Your task to perform on an android device: Find a good burger place on Maps Image 0: 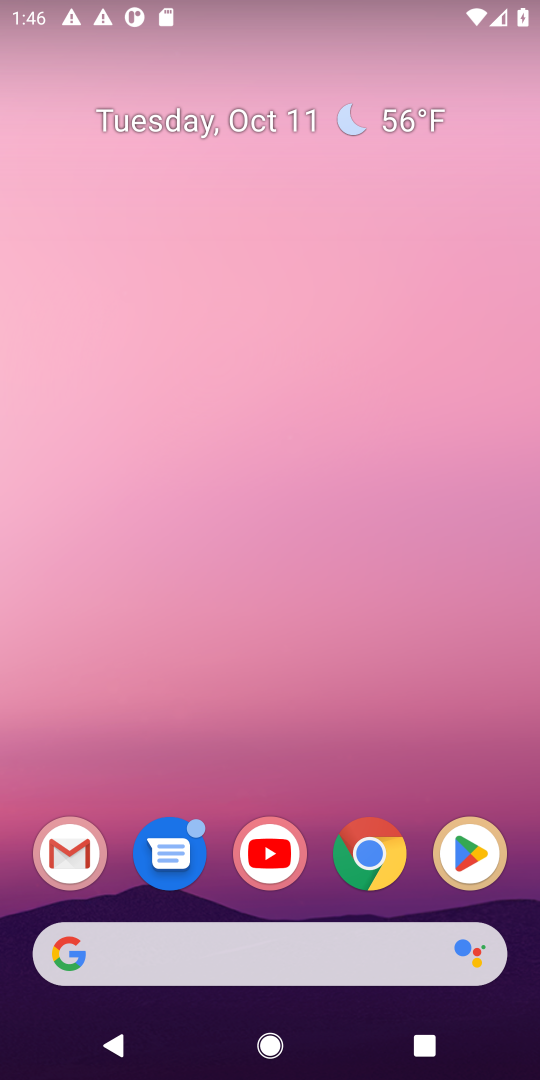
Step 0: drag from (214, 679) to (203, 248)
Your task to perform on an android device: Find a good burger place on Maps Image 1: 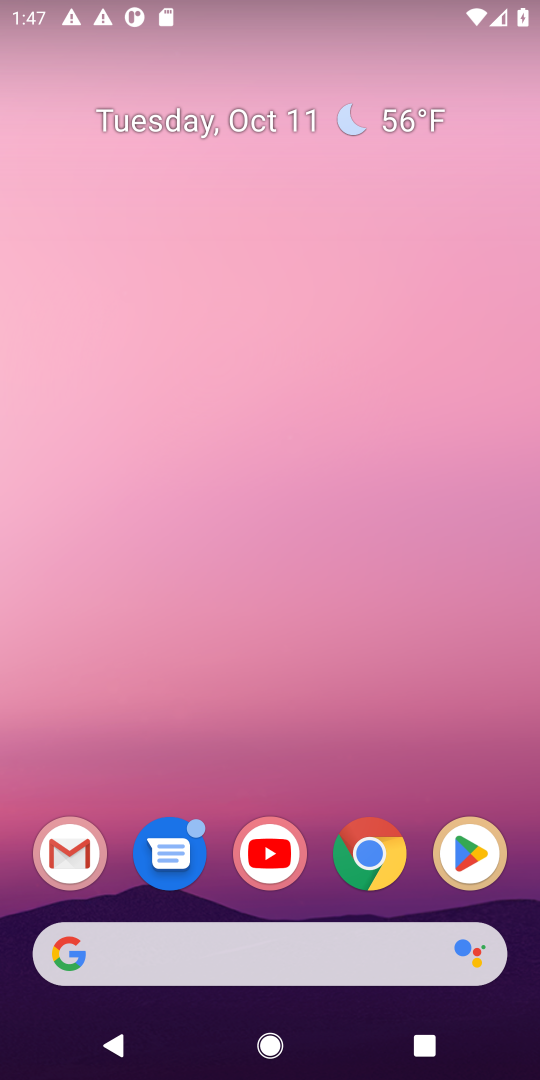
Step 1: drag from (269, 775) to (269, 103)
Your task to perform on an android device: Find a good burger place on Maps Image 2: 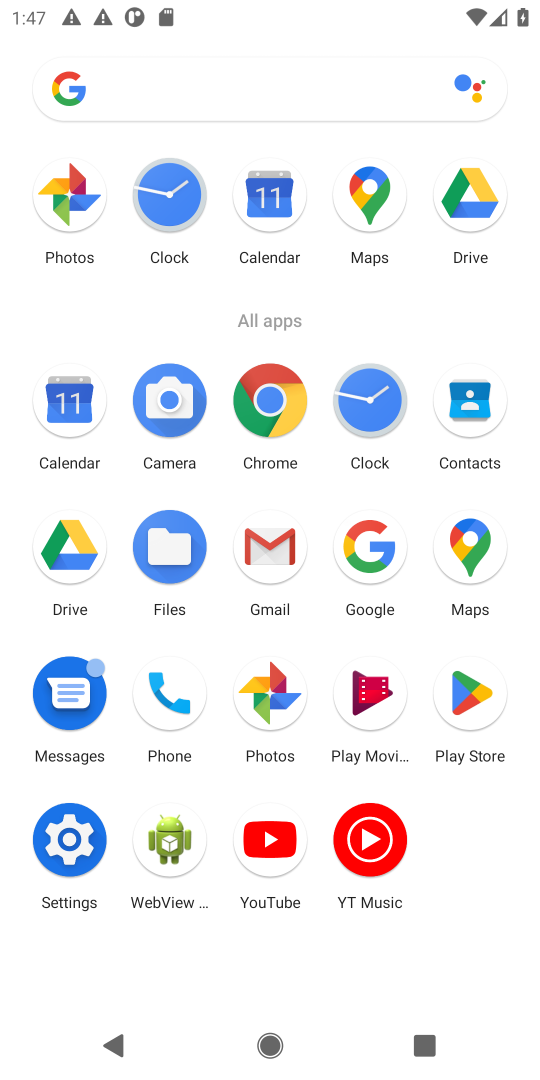
Step 2: click (369, 549)
Your task to perform on an android device: Find a good burger place on Maps Image 3: 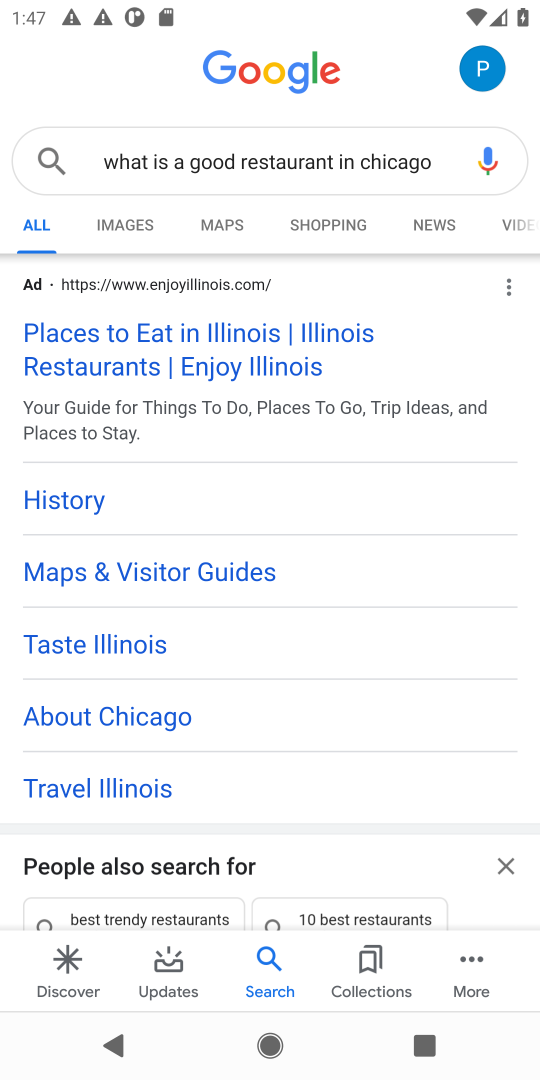
Step 3: click (220, 164)
Your task to perform on an android device: Find a good burger place on Maps Image 4: 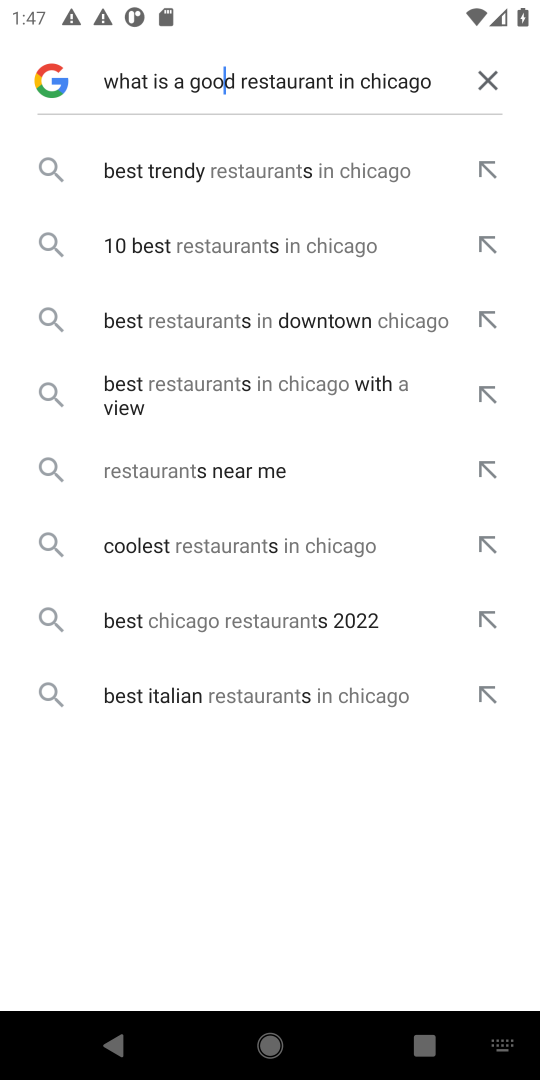
Step 4: click (488, 76)
Your task to perform on an android device: Find a good burger place on Maps Image 5: 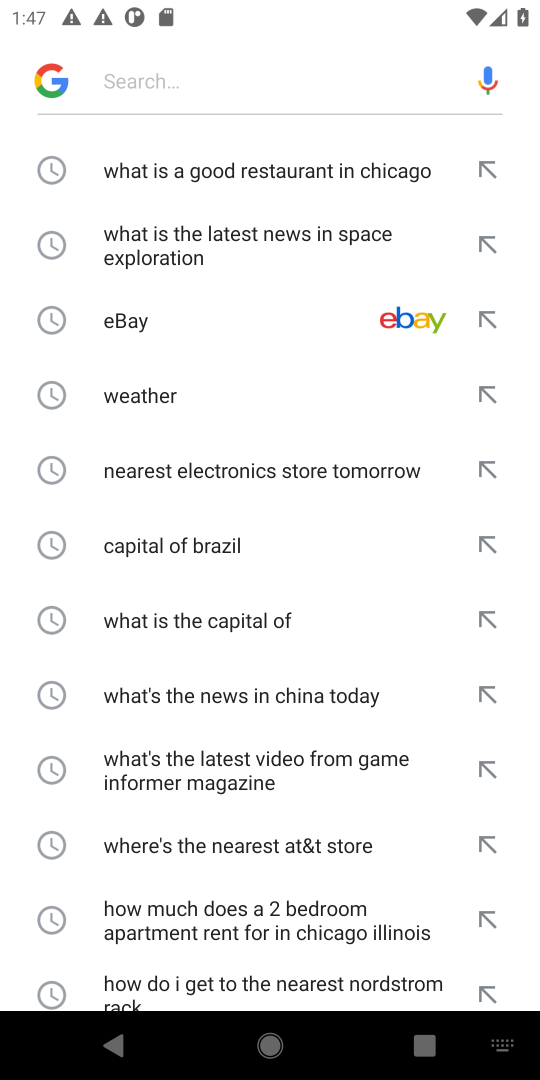
Step 5: type "Find a good burger place on Maps"
Your task to perform on an android device: Find a good burger place on Maps Image 6: 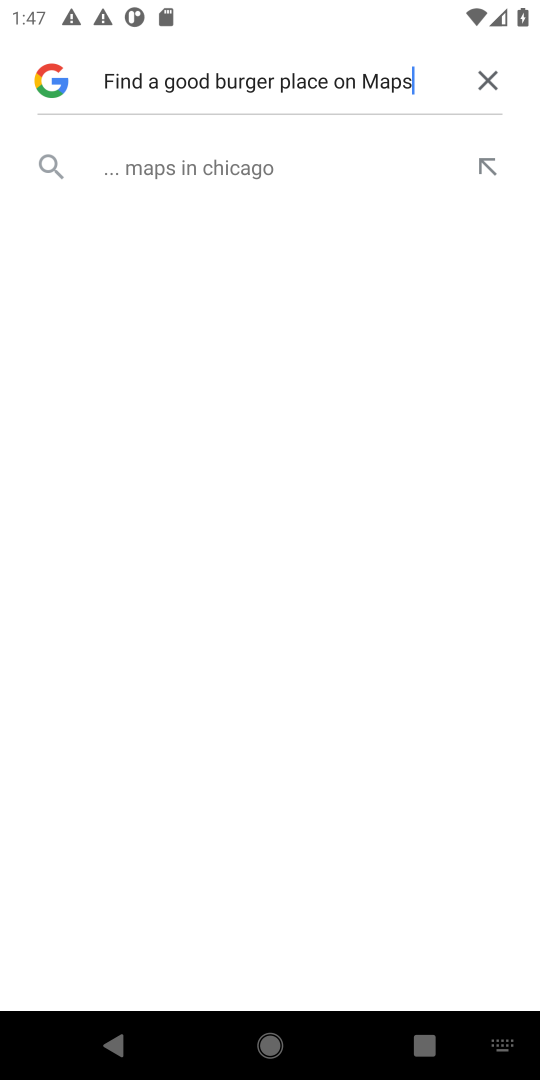
Step 6: click (239, 172)
Your task to perform on an android device: Find a good burger place on Maps Image 7: 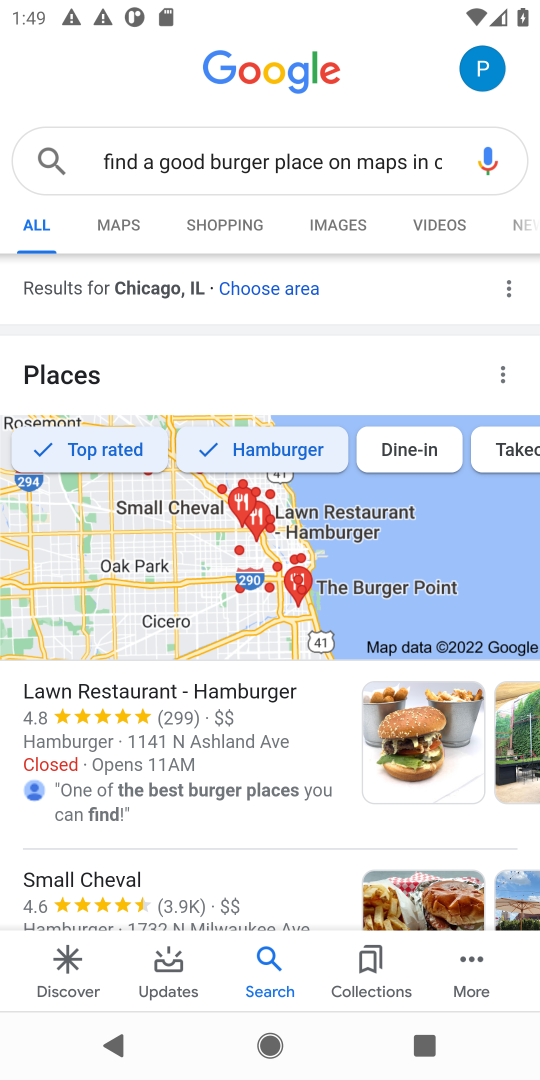
Step 7: task complete